Your task to perform on an android device: Go to sound settings Image 0: 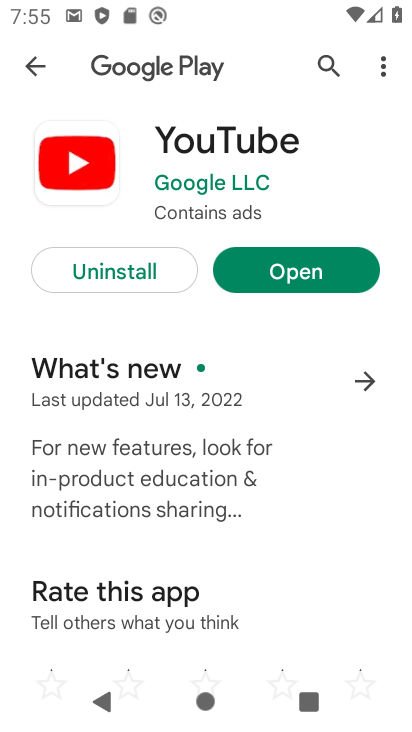
Step 0: press home button
Your task to perform on an android device: Go to sound settings Image 1: 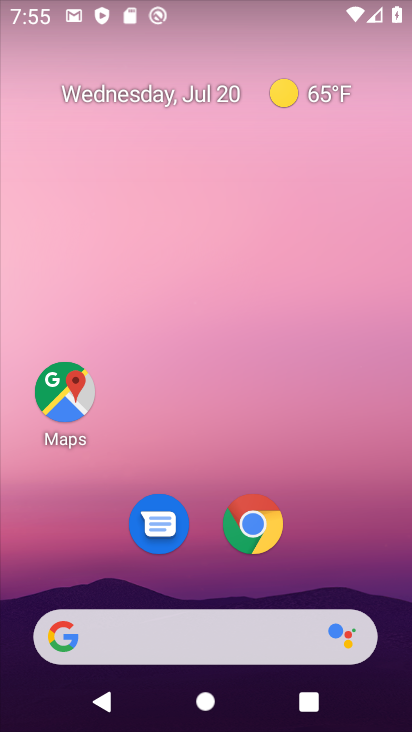
Step 1: drag from (332, 561) to (309, 9)
Your task to perform on an android device: Go to sound settings Image 2: 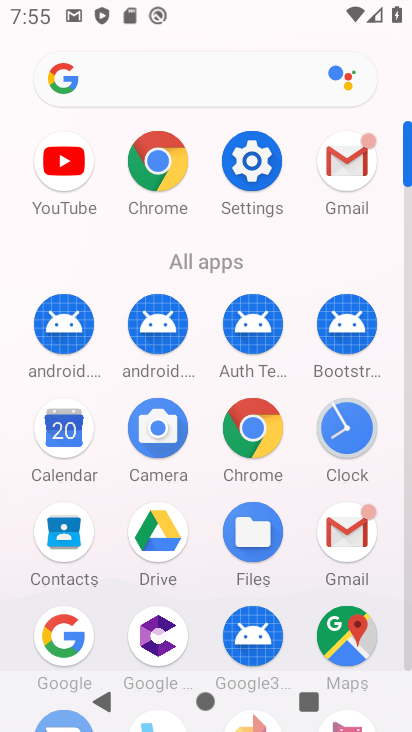
Step 2: click (255, 148)
Your task to perform on an android device: Go to sound settings Image 3: 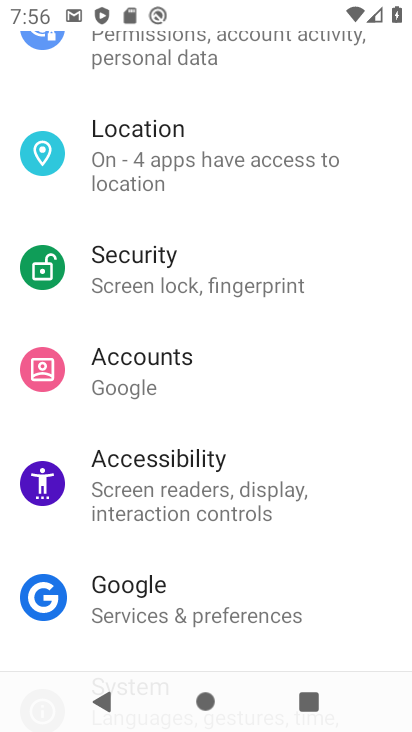
Step 3: drag from (252, 126) to (238, 565)
Your task to perform on an android device: Go to sound settings Image 4: 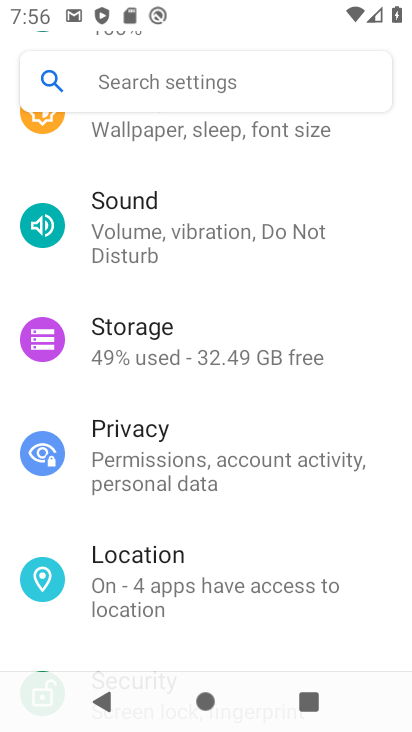
Step 4: click (220, 202)
Your task to perform on an android device: Go to sound settings Image 5: 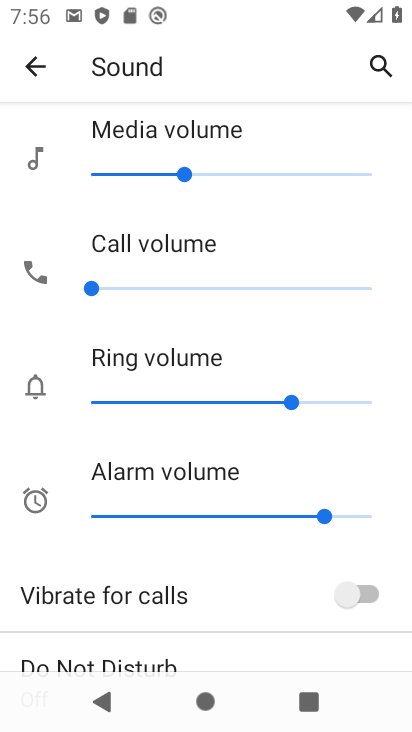
Step 5: task complete